Your task to perform on an android device: open sync settings in chrome Image 0: 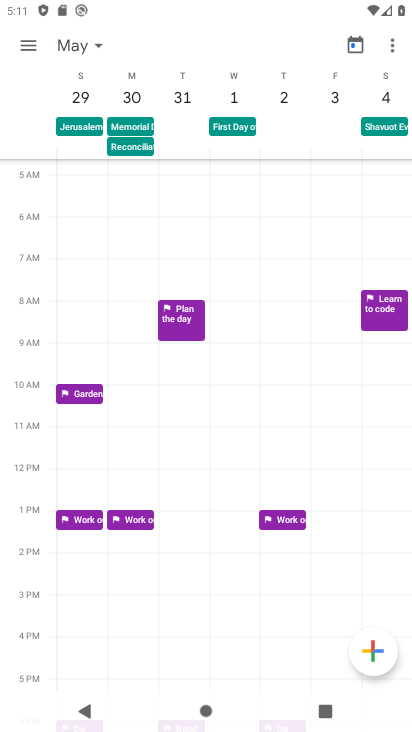
Step 0: press back button
Your task to perform on an android device: open sync settings in chrome Image 1: 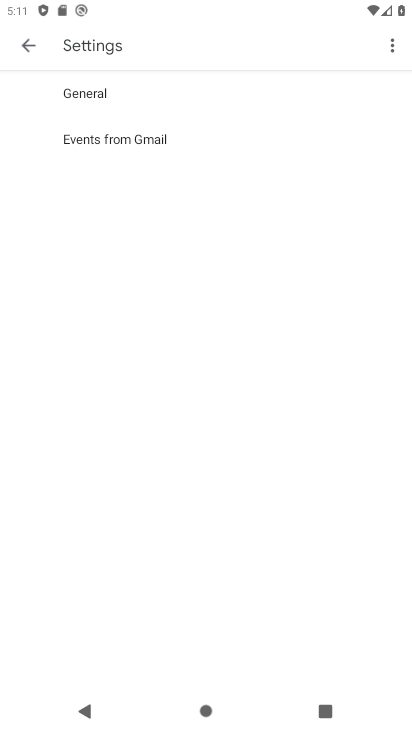
Step 1: press back button
Your task to perform on an android device: open sync settings in chrome Image 2: 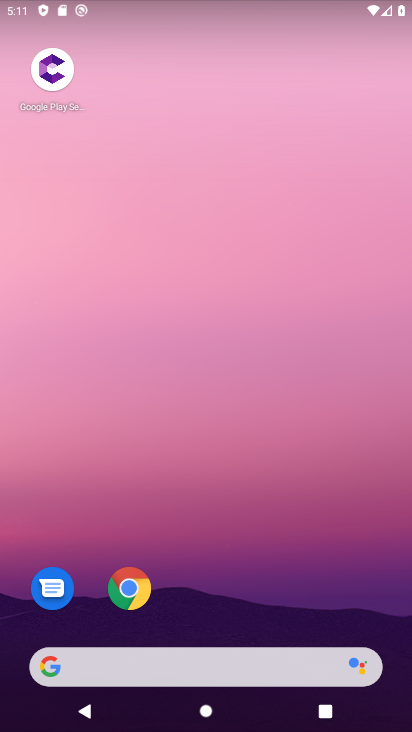
Step 2: drag from (256, 571) to (189, 1)
Your task to perform on an android device: open sync settings in chrome Image 3: 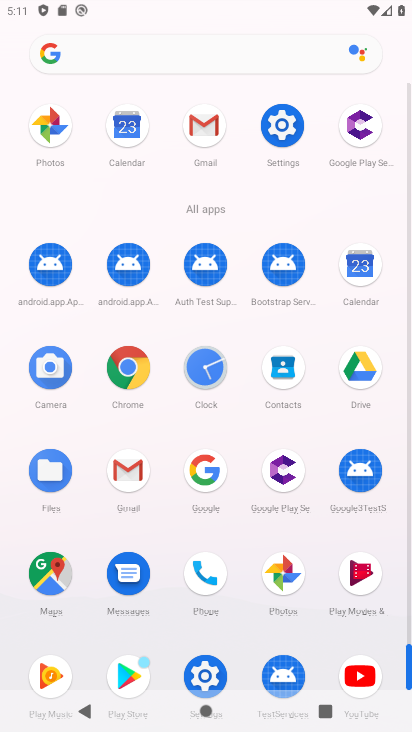
Step 3: drag from (5, 533) to (15, 208)
Your task to perform on an android device: open sync settings in chrome Image 4: 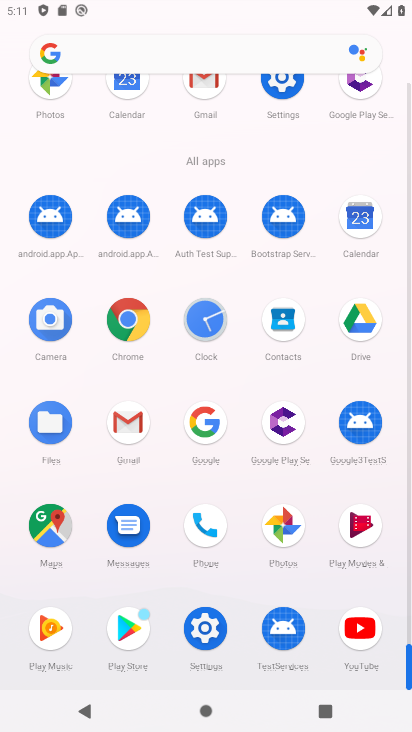
Step 4: click (125, 313)
Your task to perform on an android device: open sync settings in chrome Image 5: 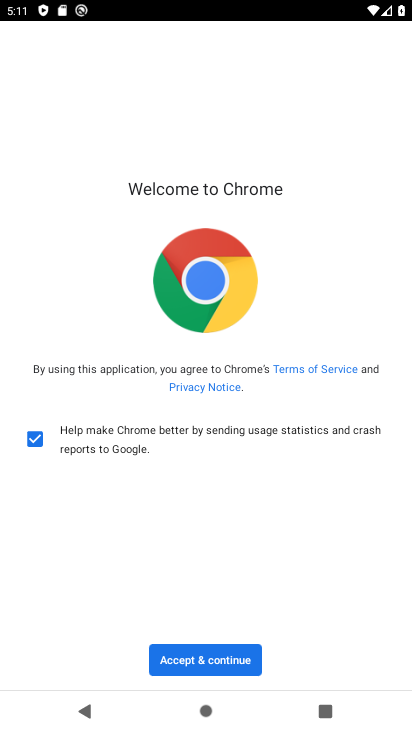
Step 5: click (208, 658)
Your task to perform on an android device: open sync settings in chrome Image 6: 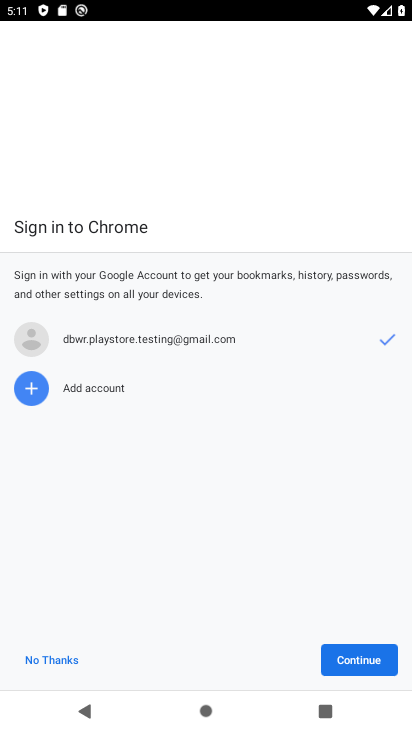
Step 6: click (358, 662)
Your task to perform on an android device: open sync settings in chrome Image 7: 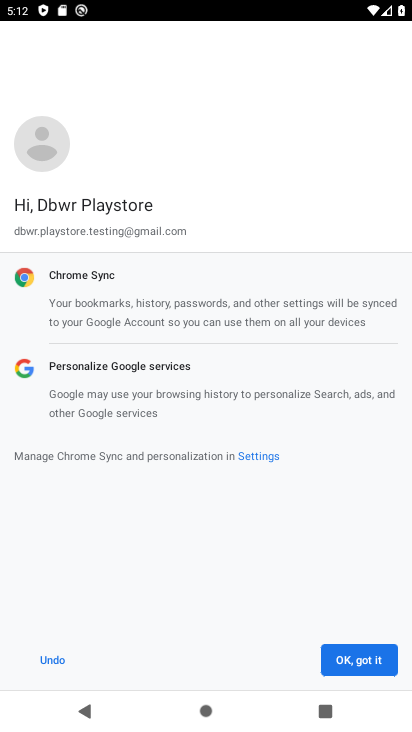
Step 7: click (353, 657)
Your task to perform on an android device: open sync settings in chrome Image 8: 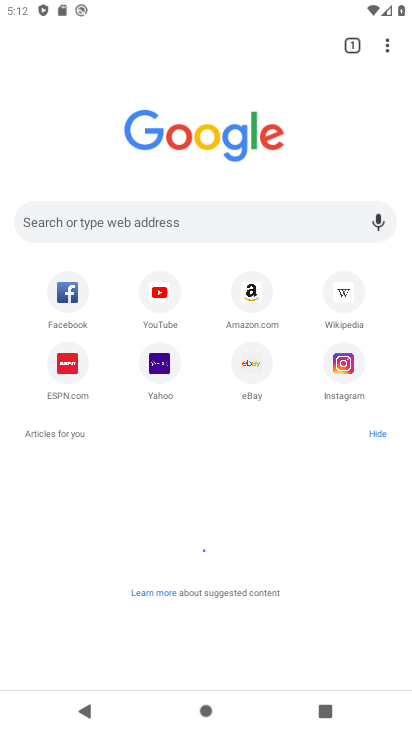
Step 8: drag from (385, 51) to (220, 383)
Your task to perform on an android device: open sync settings in chrome Image 9: 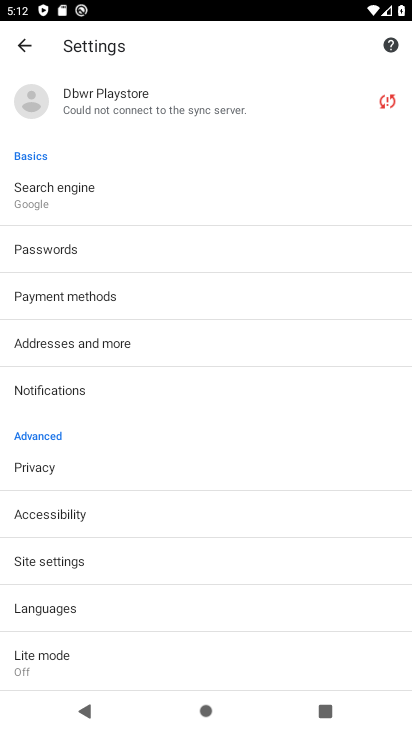
Step 9: drag from (192, 608) to (199, 176)
Your task to perform on an android device: open sync settings in chrome Image 10: 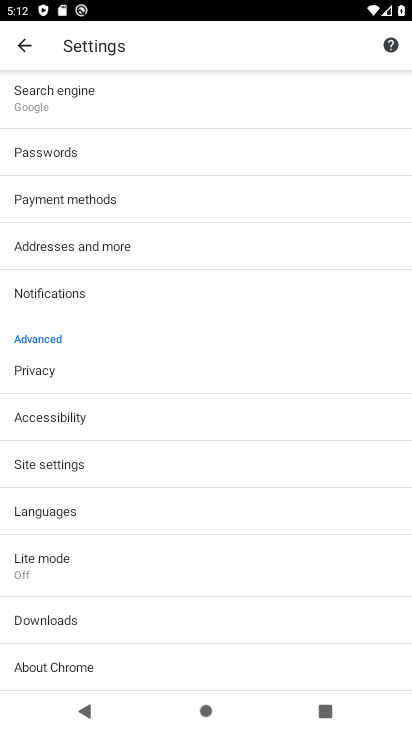
Step 10: click (96, 456)
Your task to perform on an android device: open sync settings in chrome Image 11: 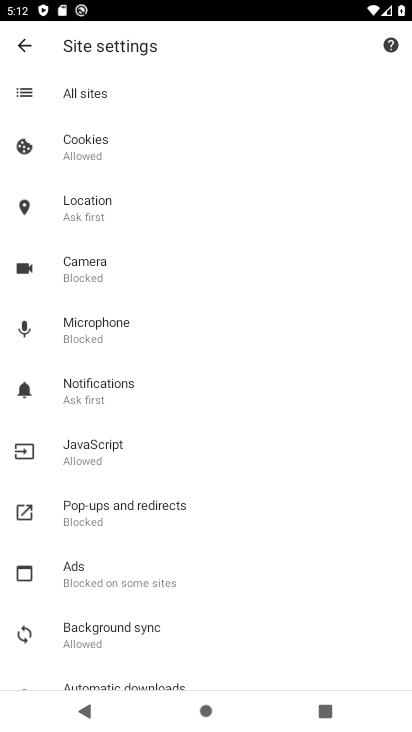
Step 11: drag from (214, 568) to (214, 143)
Your task to perform on an android device: open sync settings in chrome Image 12: 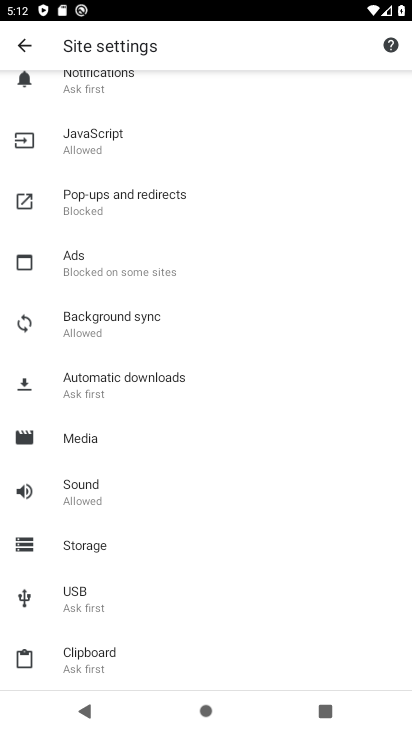
Step 12: drag from (144, 577) to (205, 108)
Your task to perform on an android device: open sync settings in chrome Image 13: 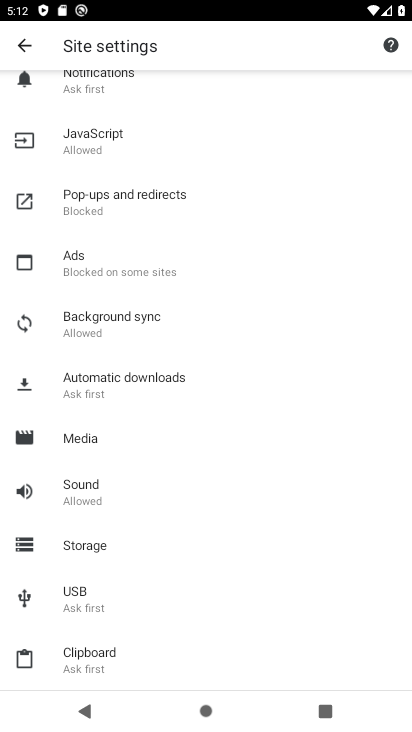
Step 13: drag from (208, 644) to (212, 109)
Your task to perform on an android device: open sync settings in chrome Image 14: 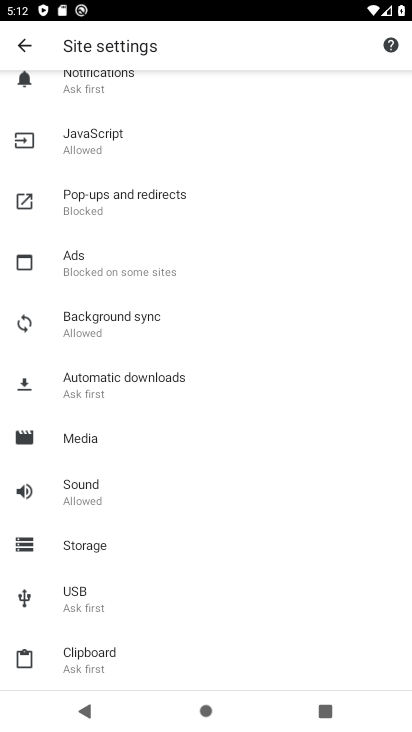
Step 14: click (28, 43)
Your task to perform on an android device: open sync settings in chrome Image 15: 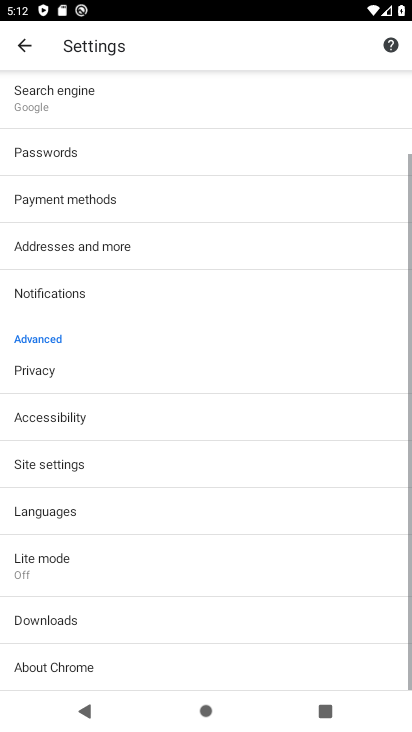
Step 15: drag from (212, 179) to (208, 539)
Your task to perform on an android device: open sync settings in chrome Image 16: 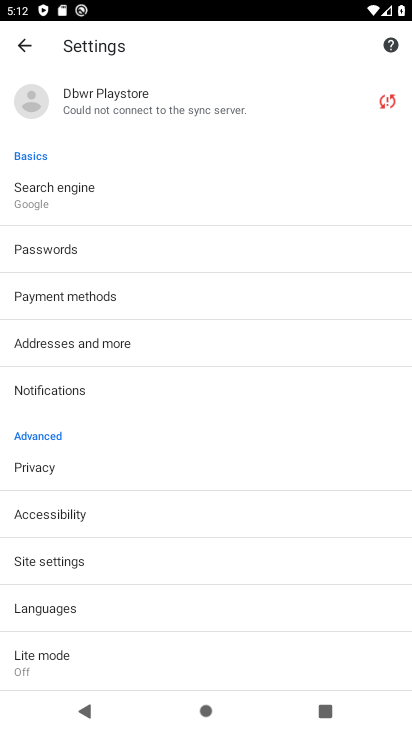
Step 16: drag from (234, 575) to (234, 153)
Your task to perform on an android device: open sync settings in chrome Image 17: 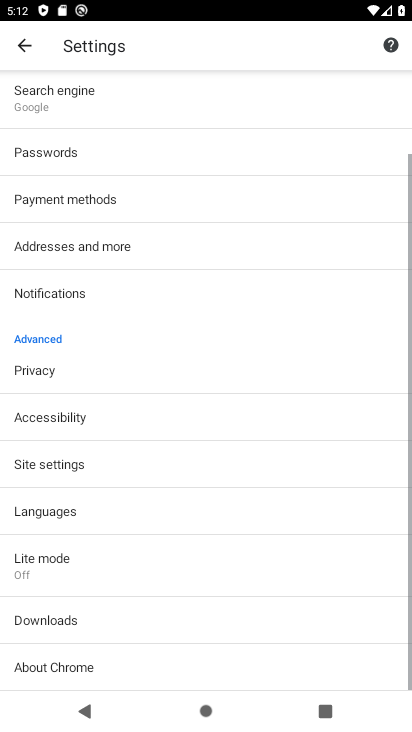
Step 17: drag from (235, 159) to (212, 564)
Your task to perform on an android device: open sync settings in chrome Image 18: 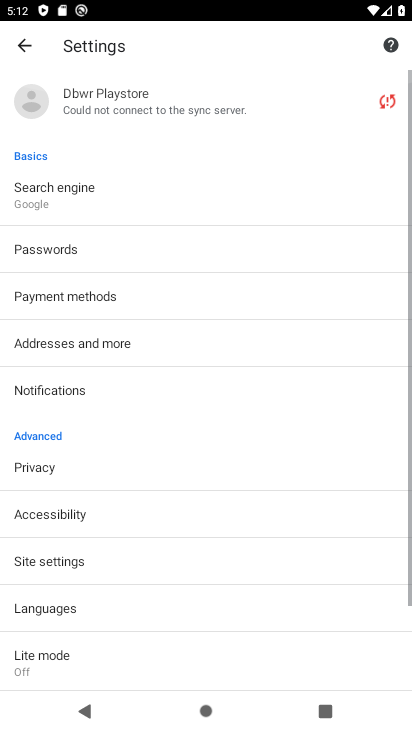
Step 18: drag from (198, 579) to (196, 92)
Your task to perform on an android device: open sync settings in chrome Image 19: 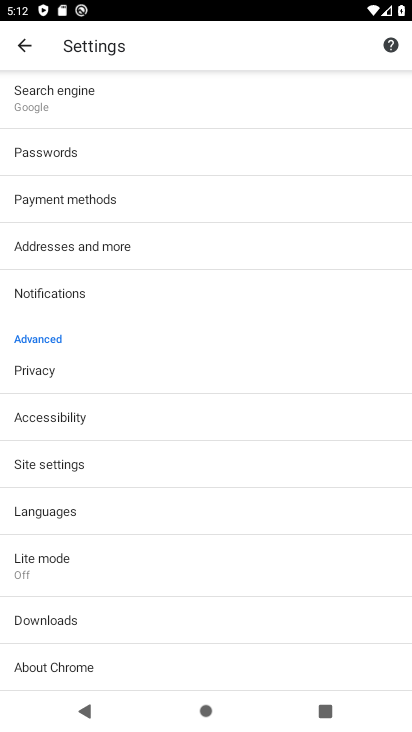
Step 19: click (123, 652)
Your task to perform on an android device: open sync settings in chrome Image 20: 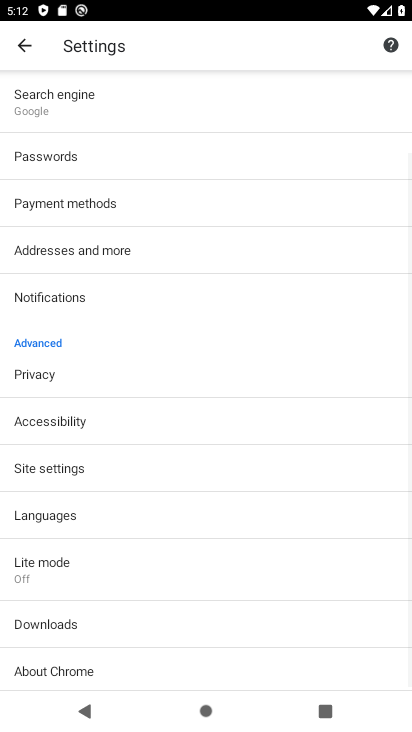
Step 20: click (28, 48)
Your task to perform on an android device: open sync settings in chrome Image 21: 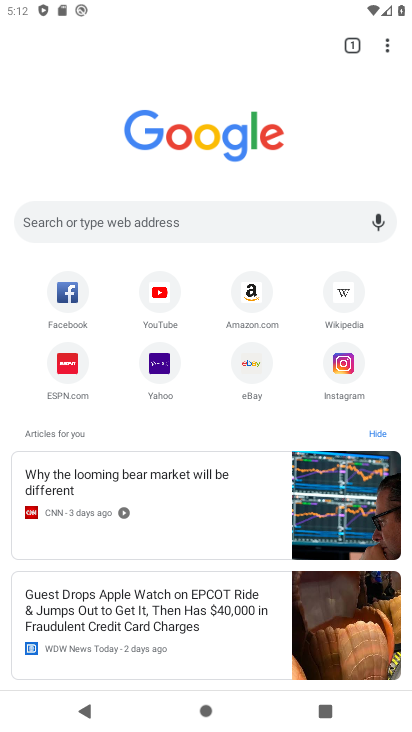
Step 21: drag from (387, 47) to (216, 373)
Your task to perform on an android device: open sync settings in chrome Image 22: 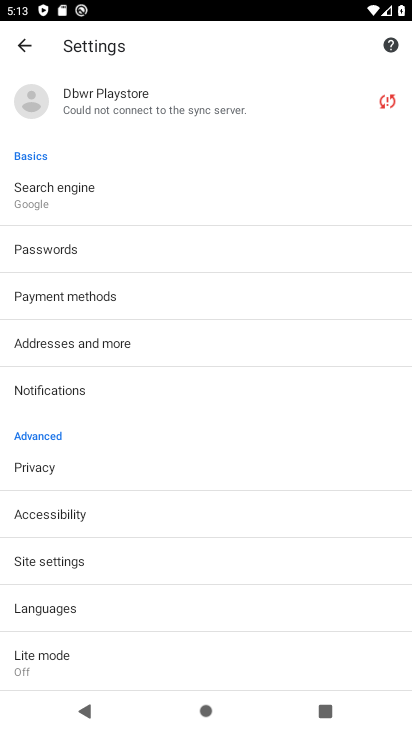
Step 22: click (111, 109)
Your task to perform on an android device: open sync settings in chrome Image 23: 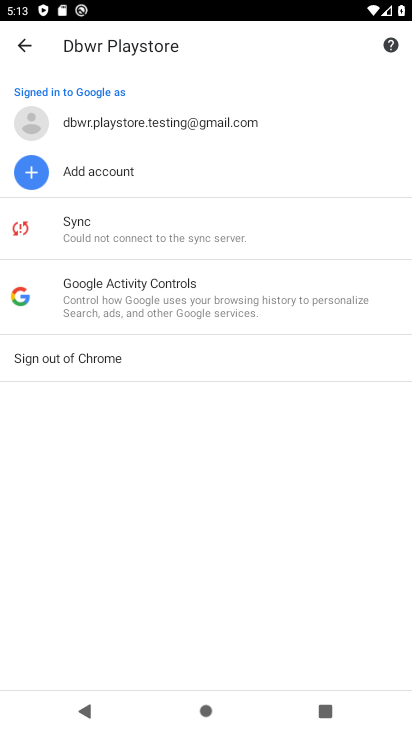
Step 23: click (127, 245)
Your task to perform on an android device: open sync settings in chrome Image 24: 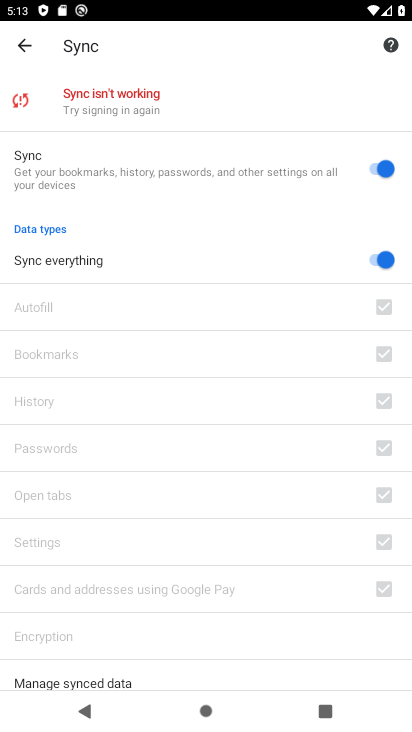
Step 24: task complete